Your task to perform on an android device: open app "DoorDash - Dasher" (install if not already installed) and go to login screen Image 0: 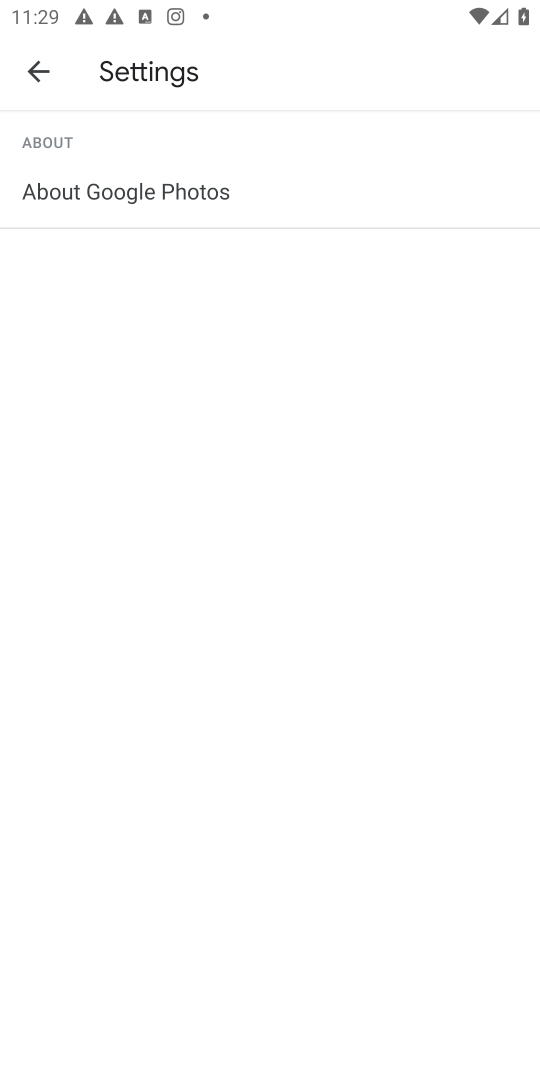
Step 0: press home button
Your task to perform on an android device: open app "DoorDash - Dasher" (install if not already installed) and go to login screen Image 1: 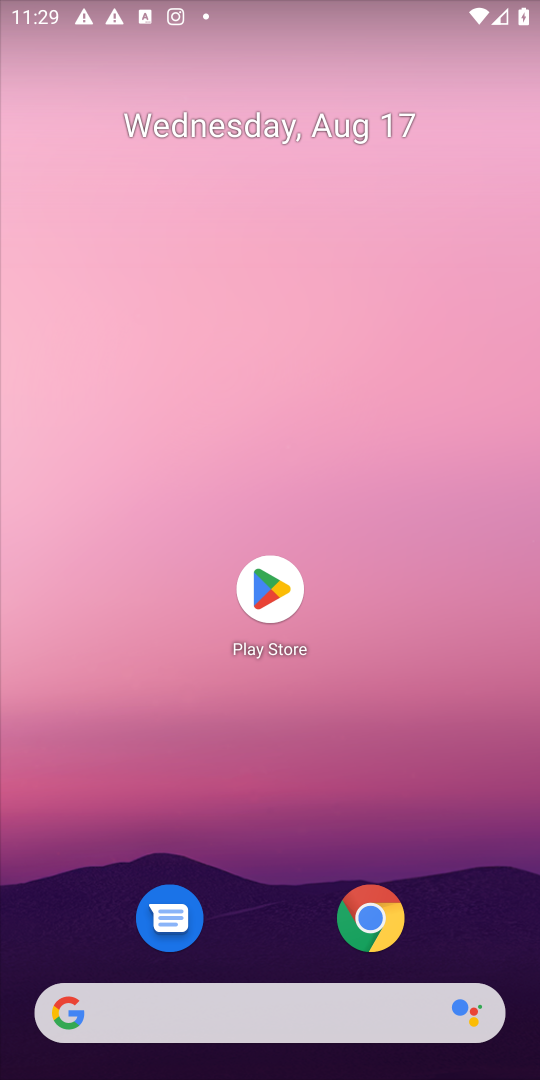
Step 1: click (278, 597)
Your task to perform on an android device: open app "DoorDash - Dasher" (install if not already installed) and go to login screen Image 2: 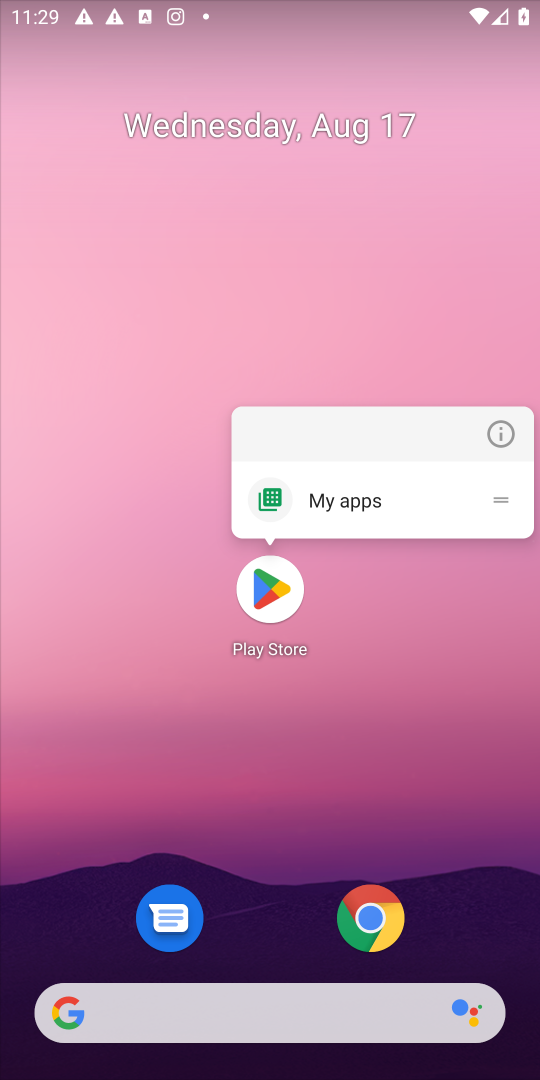
Step 2: click (255, 596)
Your task to perform on an android device: open app "DoorDash - Dasher" (install if not already installed) and go to login screen Image 3: 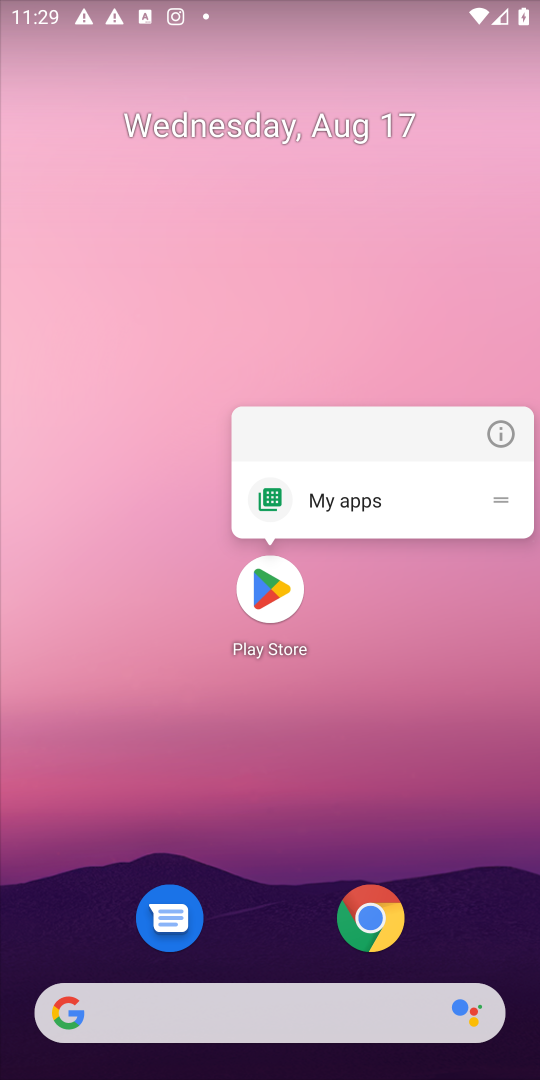
Step 3: click (255, 596)
Your task to perform on an android device: open app "DoorDash - Dasher" (install if not already installed) and go to login screen Image 4: 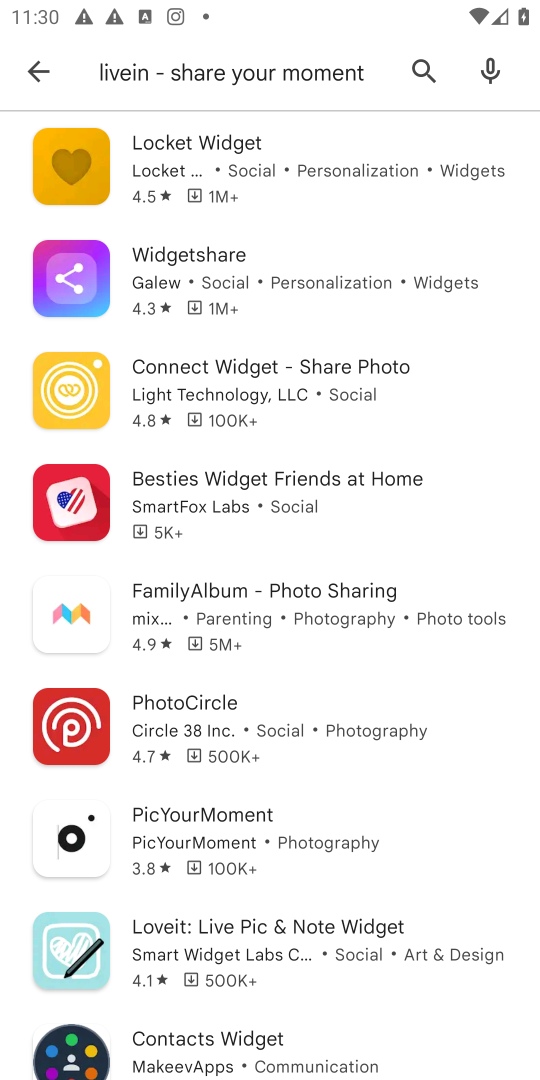
Step 4: click (419, 65)
Your task to perform on an android device: open app "DoorDash - Dasher" (install if not already installed) and go to login screen Image 5: 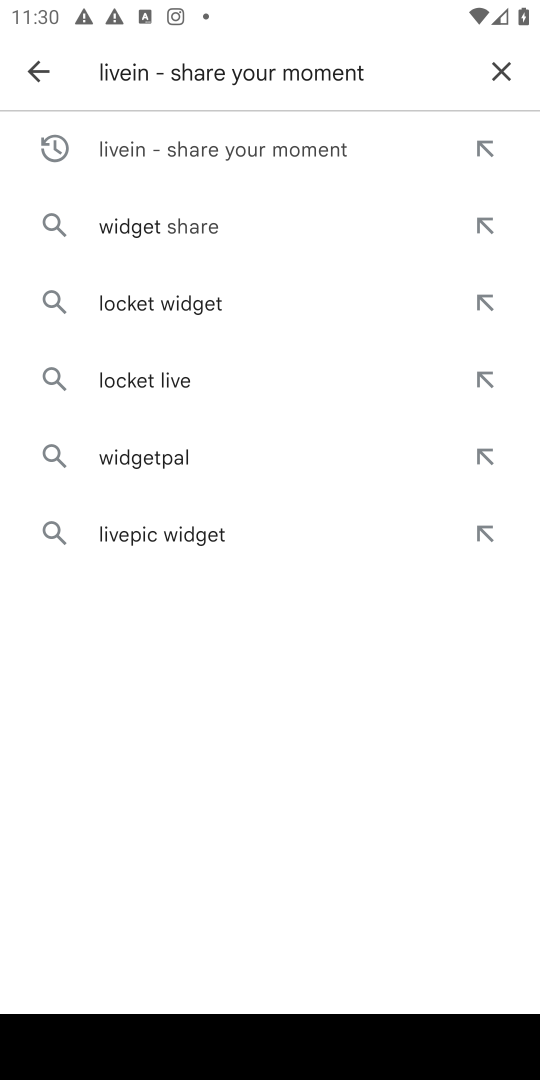
Step 5: click (486, 64)
Your task to perform on an android device: open app "DoorDash - Dasher" (install if not already installed) and go to login screen Image 6: 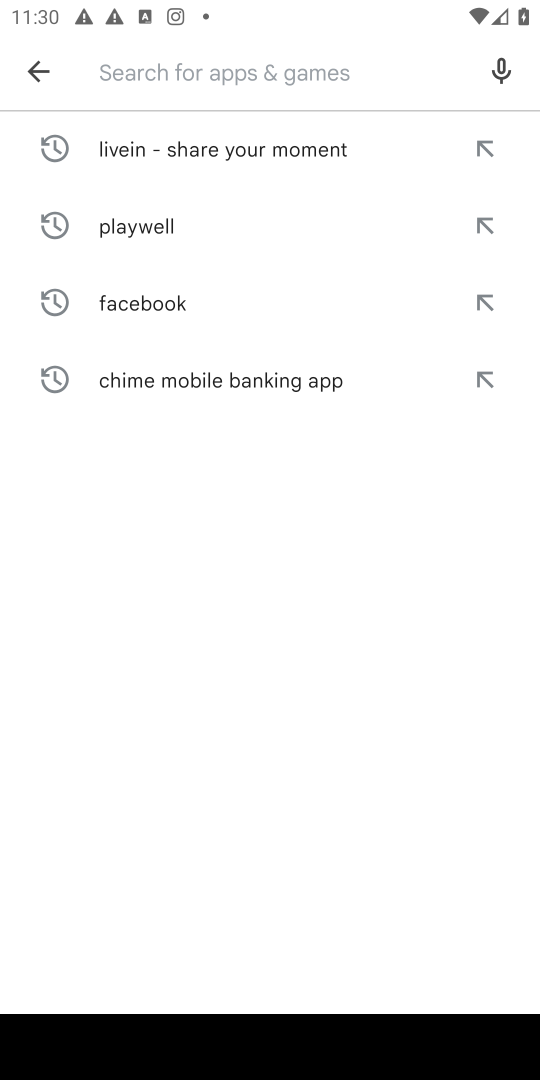
Step 6: drag from (88, 1075) to (121, 1016)
Your task to perform on an android device: open app "DoorDash - Dasher" (install if not already installed) and go to login screen Image 7: 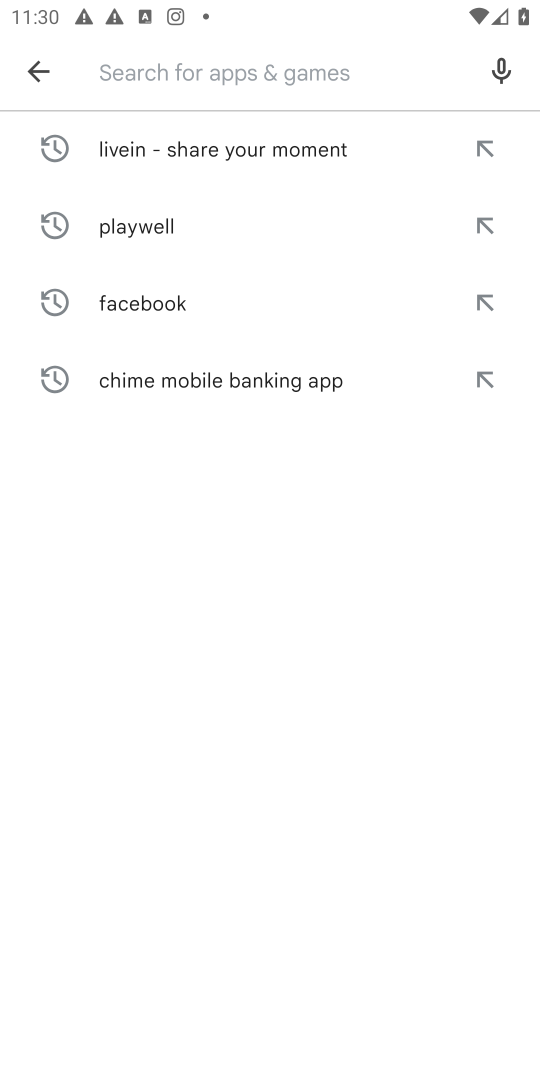
Step 7: type "DoorDash - Dasher"
Your task to perform on an android device: open app "DoorDash - Dasher" (install if not already installed) and go to login screen Image 8: 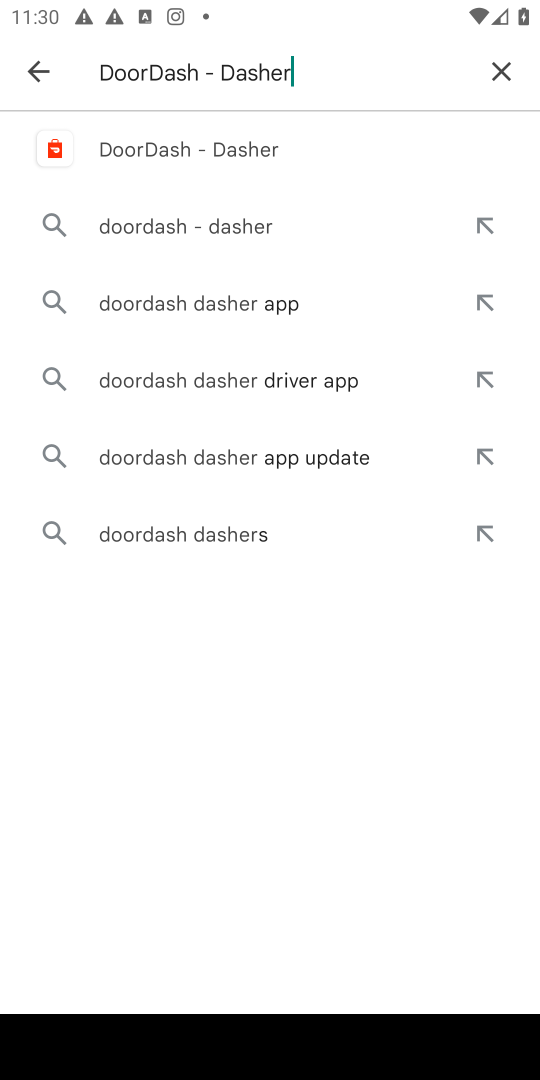
Step 8: click (192, 145)
Your task to perform on an android device: open app "DoorDash - Dasher" (install if not already installed) and go to login screen Image 9: 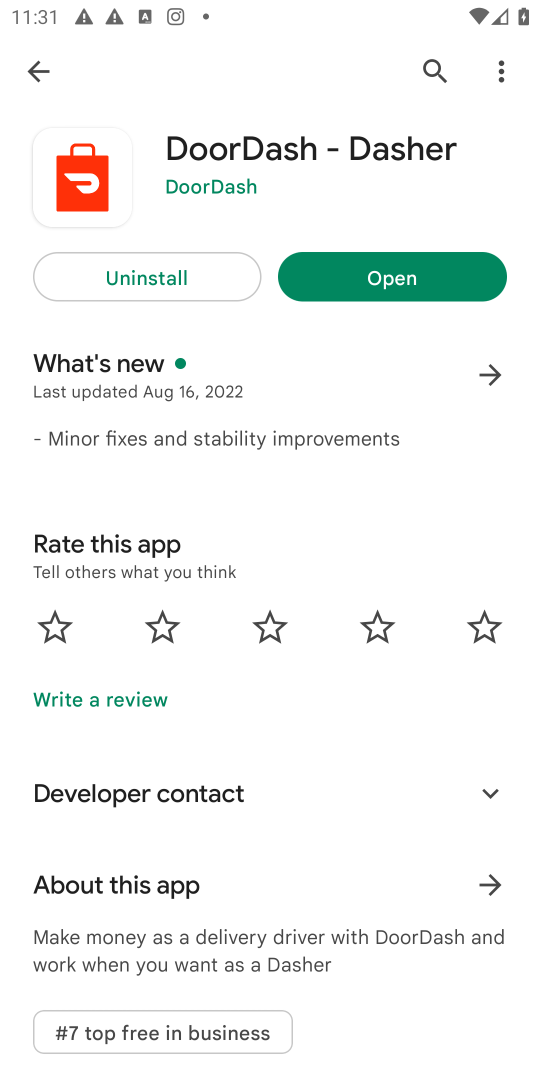
Step 9: click (353, 269)
Your task to perform on an android device: open app "DoorDash - Dasher" (install if not already installed) and go to login screen Image 10: 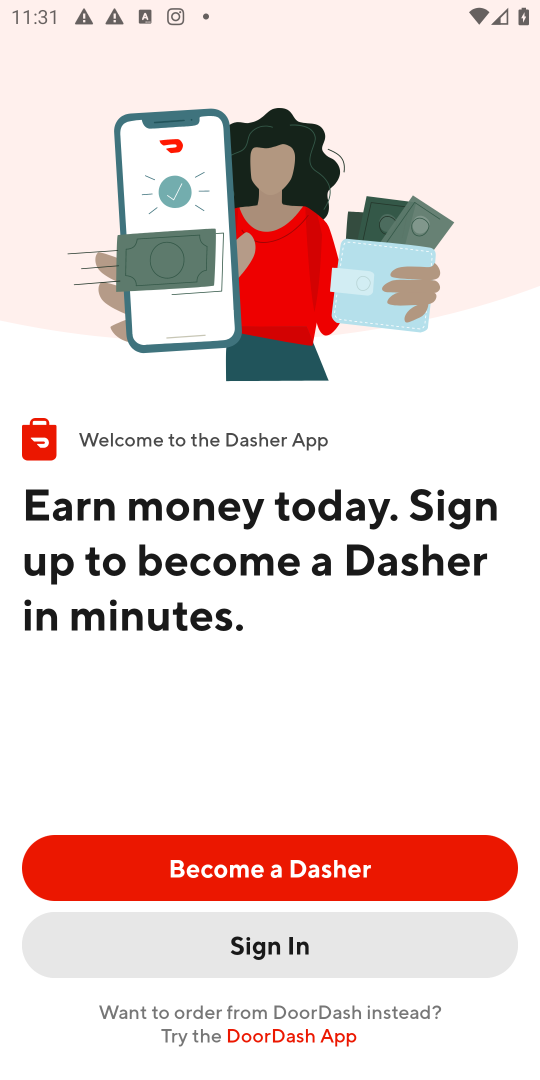
Step 10: task complete